Your task to perform on an android device: visit the assistant section in the google photos Image 0: 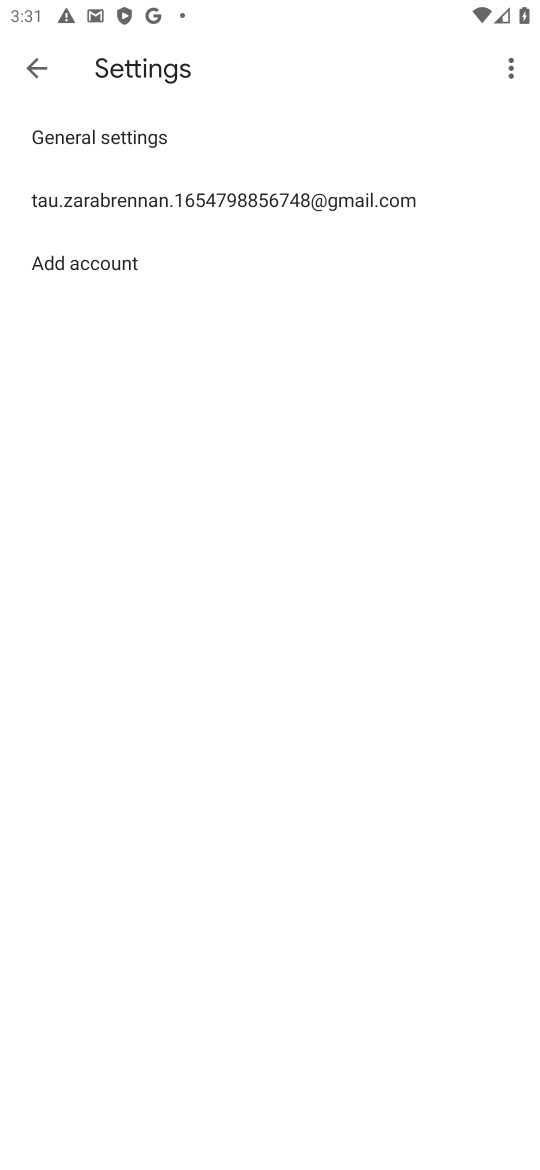
Step 0: click (36, 65)
Your task to perform on an android device: visit the assistant section in the google photos Image 1: 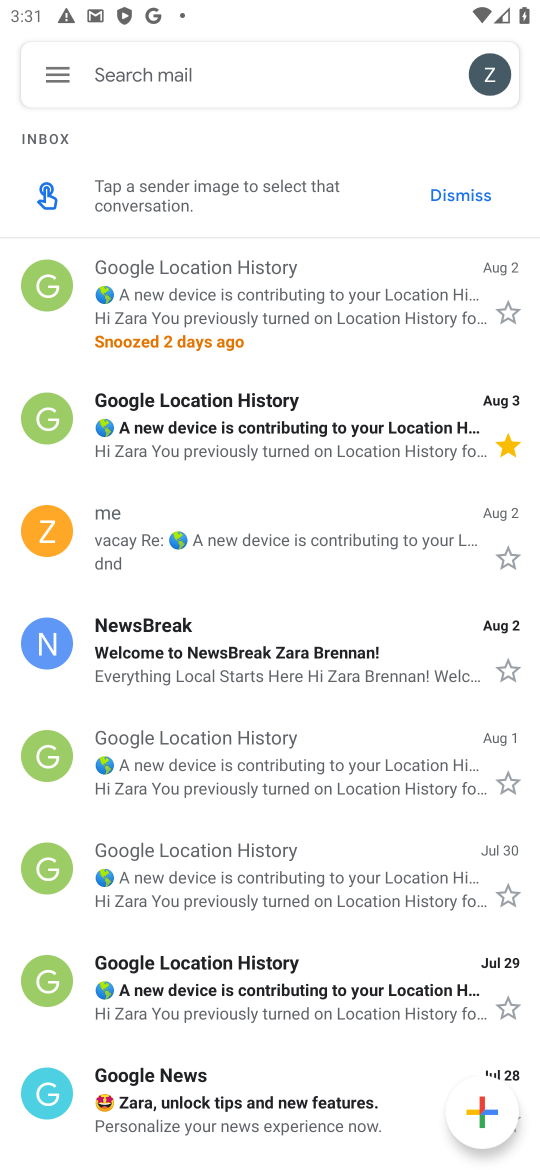
Step 1: press home button
Your task to perform on an android device: visit the assistant section in the google photos Image 2: 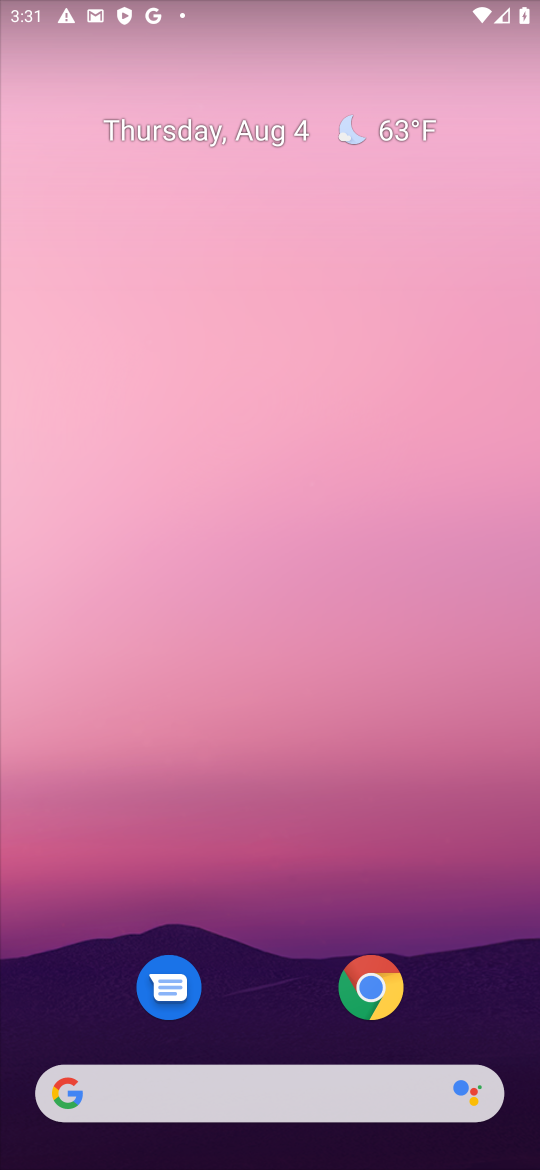
Step 2: drag from (257, 842) to (316, 5)
Your task to perform on an android device: visit the assistant section in the google photos Image 3: 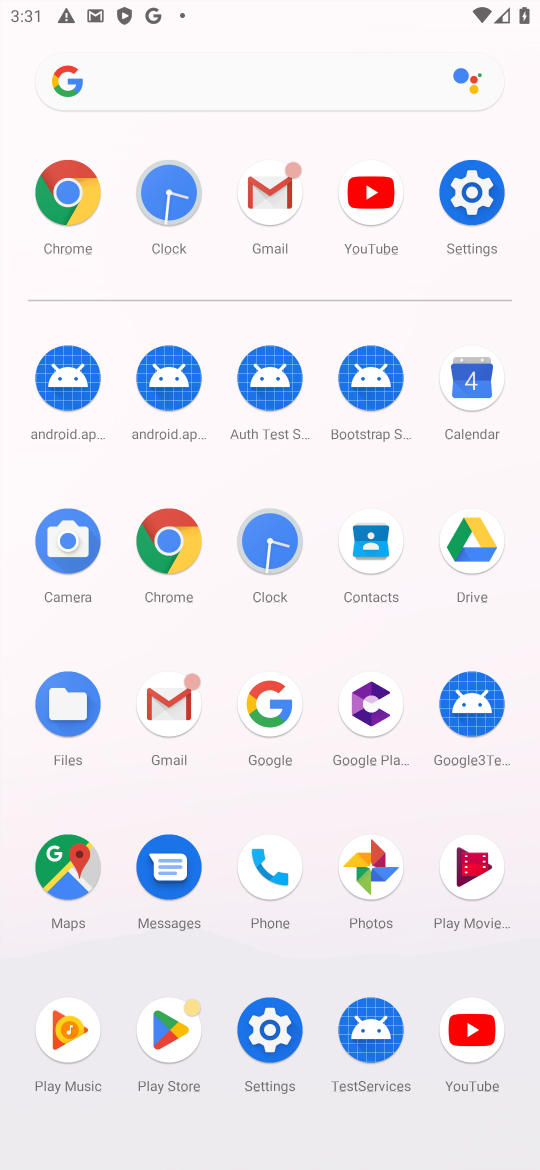
Step 3: click (383, 878)
Your task to perform on an android device: visit the assistant section in the google photos Image 4: 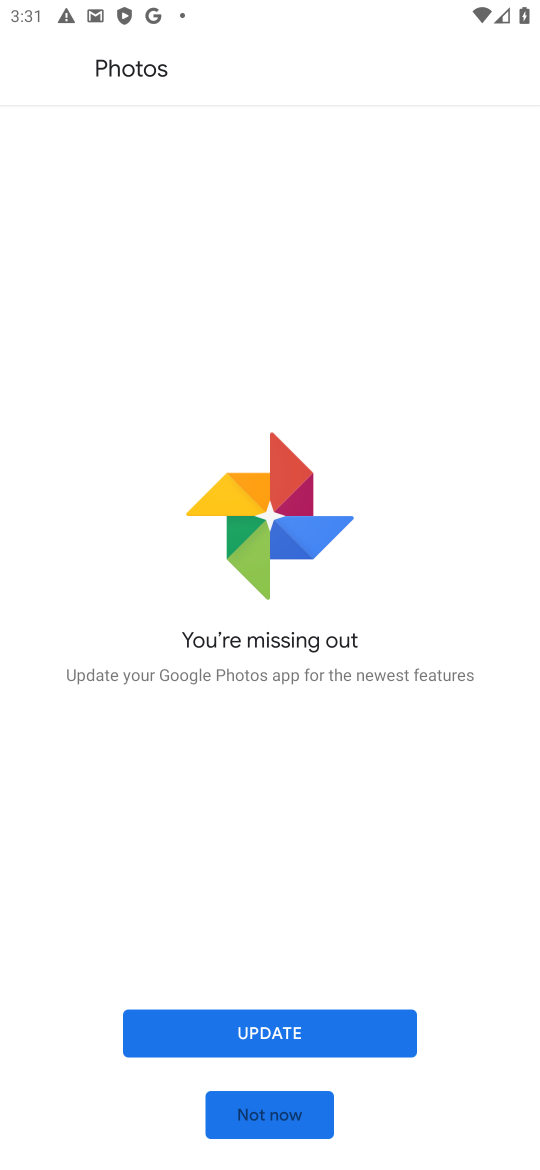
Step 4: click (266, 1017)
Your task to perform on an android device: visit the assistant section in the google photos Image 5: 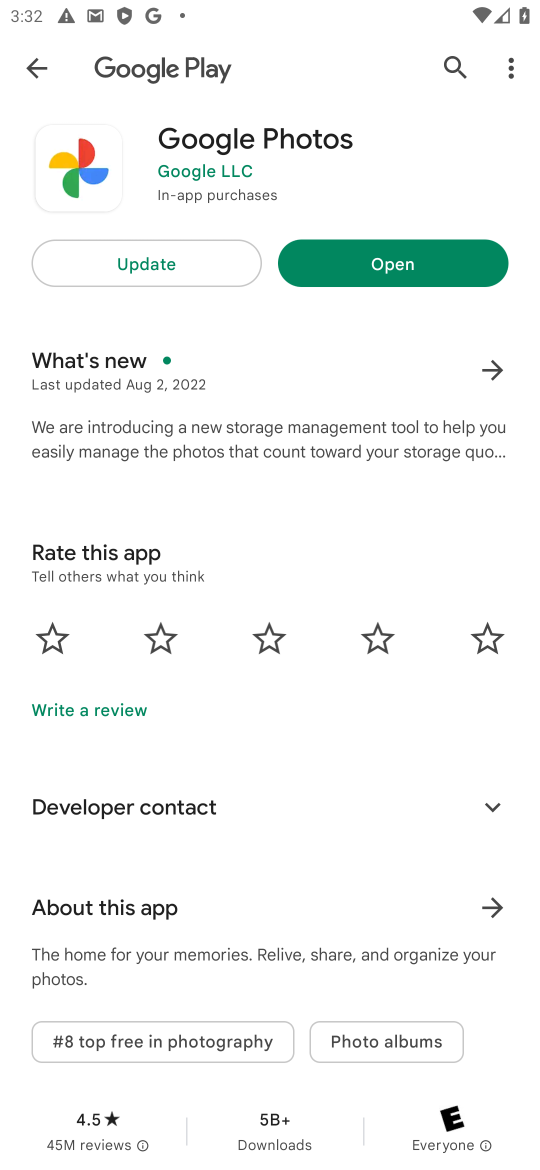
Step 5: click (167, 261)
Your task to perform on an android device: visit the assistant section in the google photos Image 6: 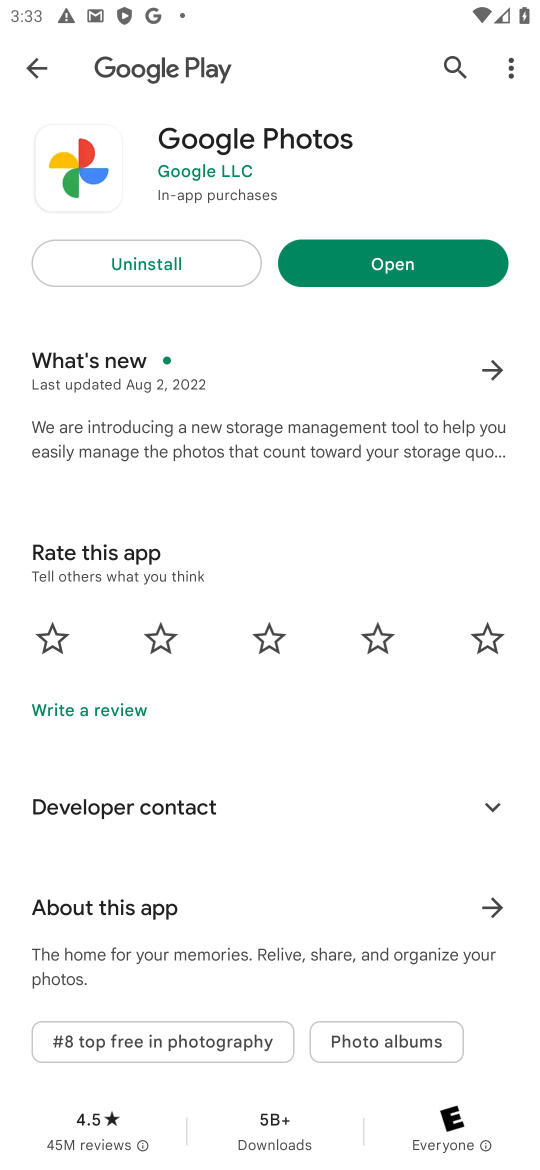
Step 6: click (375, 265)
Your task to perform on an android device: visit the assistant section in the google photos Image 7: 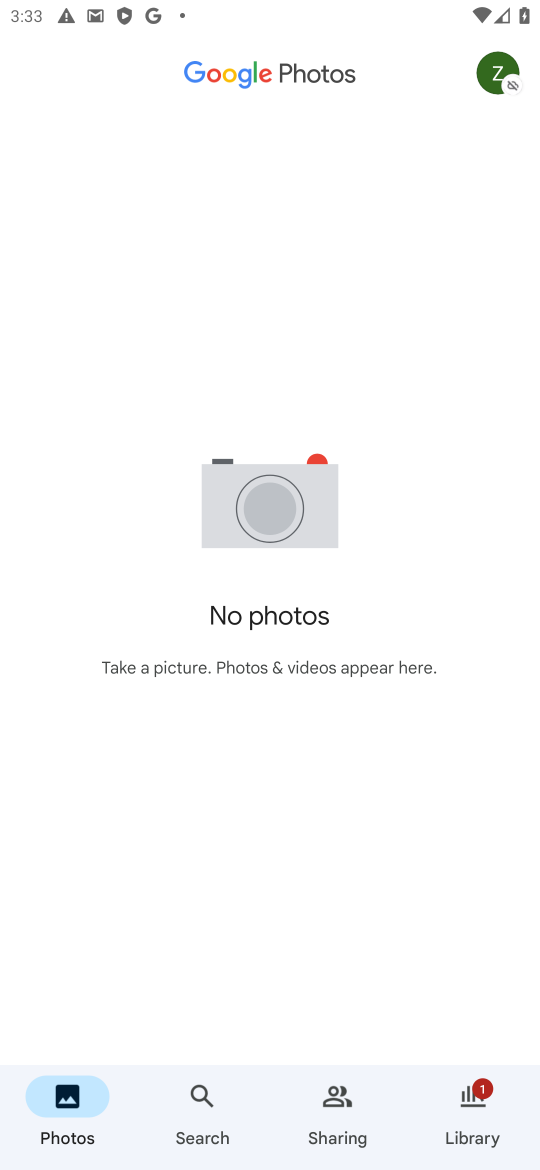
Step 7: click (504, 58)
Your task to perform on an android device: visit the assistant section in the google photos Image 8: 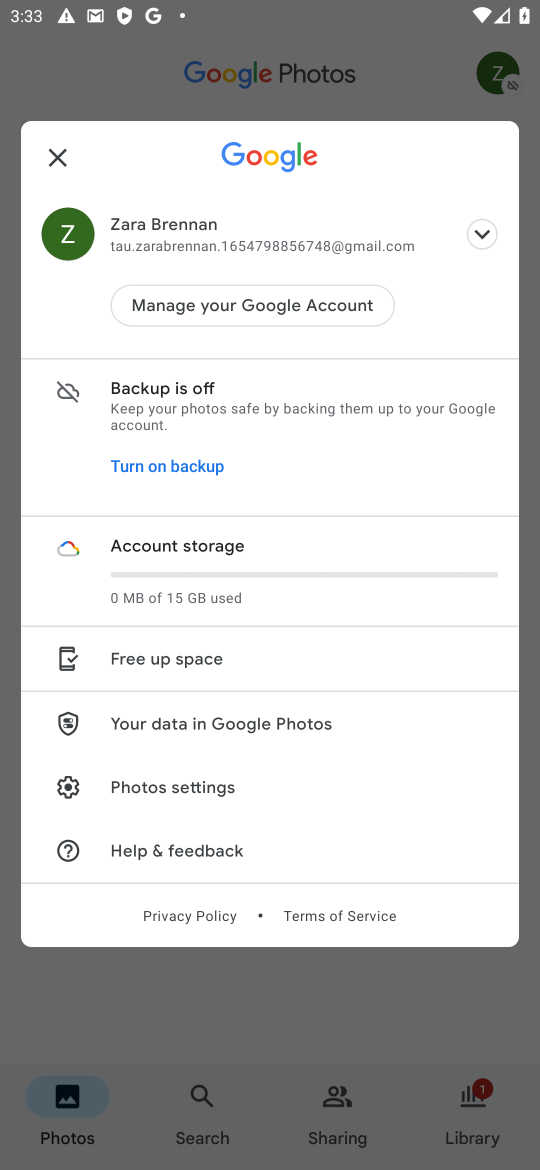
Step 8: task complete